Your task to perform on an android device: Go to internet settings Image 0: 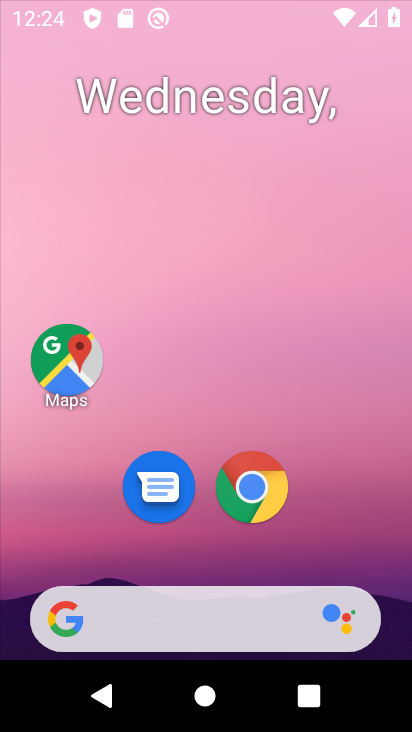
Step 0: click (303, 19)
Your task to perform on an android device: Go to internet settings Image 1: 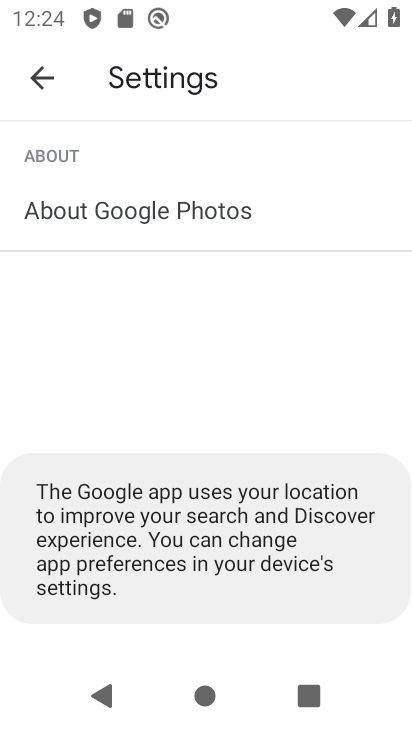
Step 1: drag from (320, 356) to (321, 92)
Your task to perform on an android device: Go to internet settings Image 2: 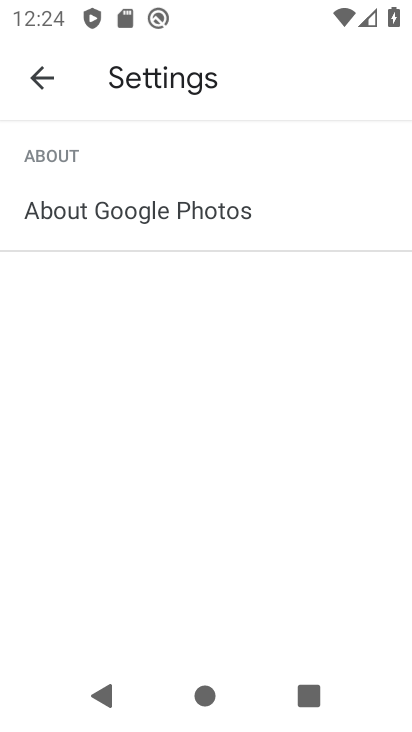
Step 2: press home button
Your task to perform on an android device: Go to internet settings Image 3: 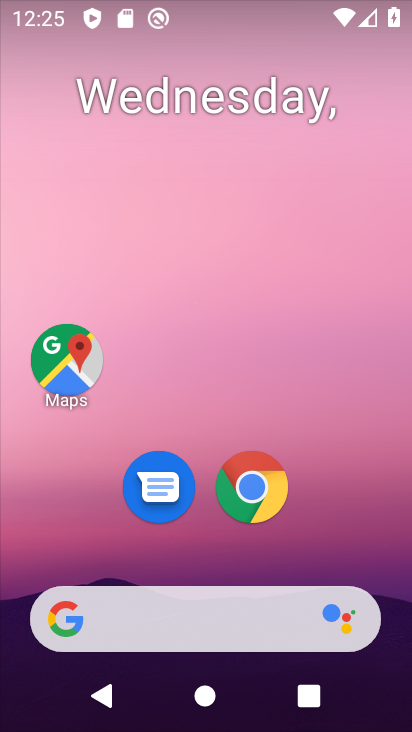
Step 3: drag from (321, 323) to (322, 123)
Your task to perform on an android device: Go to internet settings Image 4: 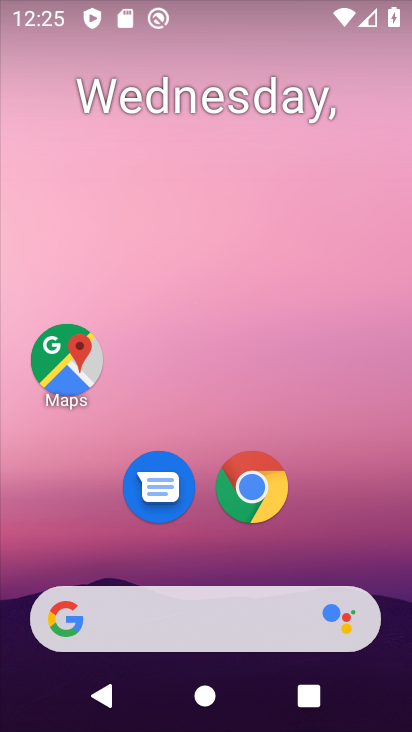
Step 4: drag from (288, 540) to (322, 100)
Your task to perform on an android device: Go to internet settings Image 5: 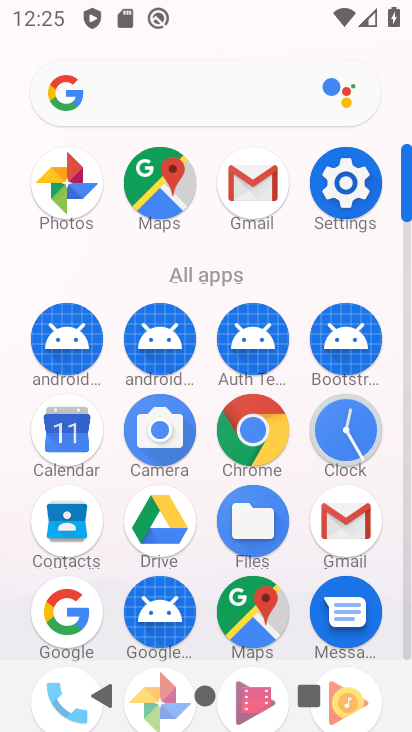
Step 5: click (356, 180)
Your task to perform on an android device: Go to internet settings Image 6: 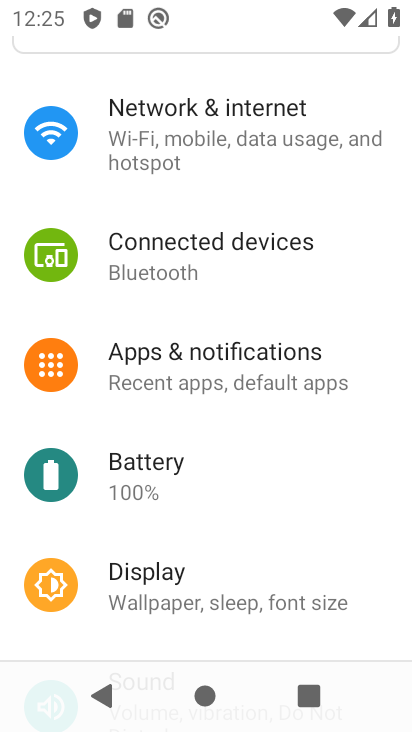
Step 6: click (292, 146)
Your task to perform on an android device: Go to internet settings Image 7: 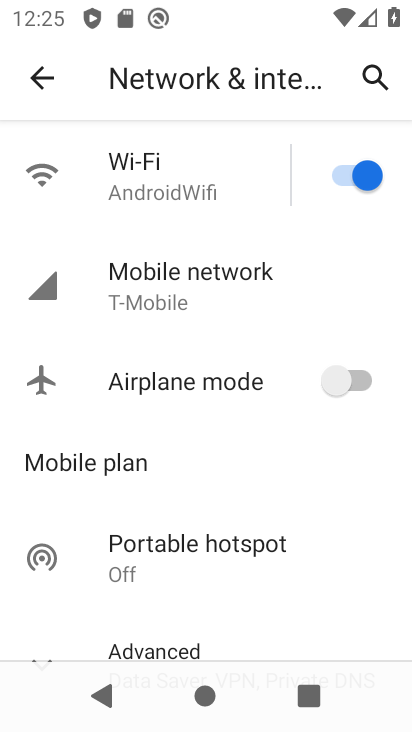
Step 7: task complete